Your task to perform on an android device: Go to Wikipedia Image 0: 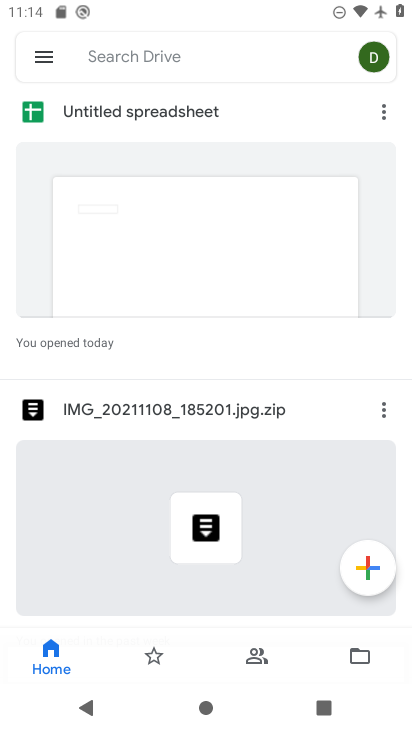
Step 0: press home button
Your task to perform on an android device: Go to Wikipedia Image 1: 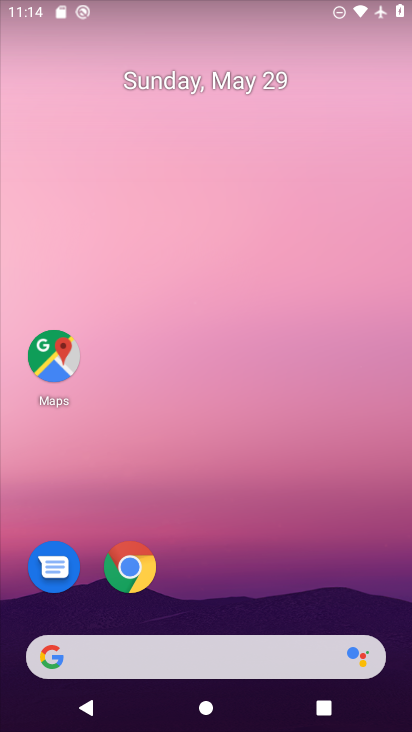
Step 1: click (132, 566)
Your task to perform on an android device: Go to Wikipedia Image 2: 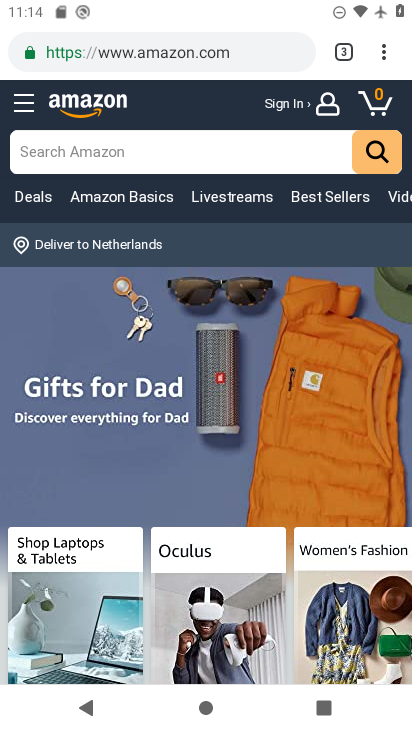
Step 2: click (246, 41)
Your task to perform on an android device: Go to Wikipedia Image 3: 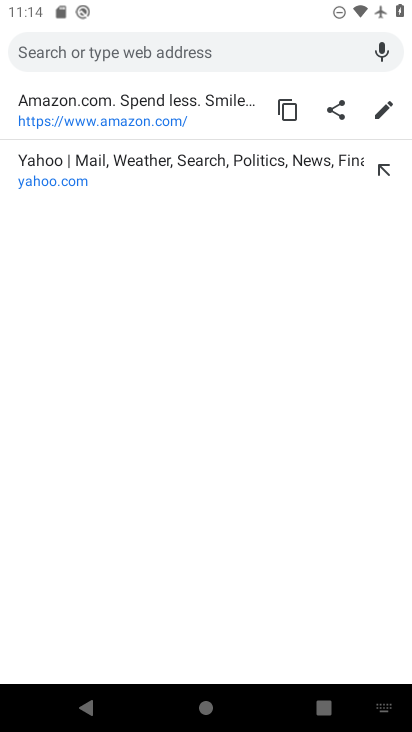
Step 3: type "wikipedia"
Your task to perform on an android device: Go to Wikipedia Image 4: 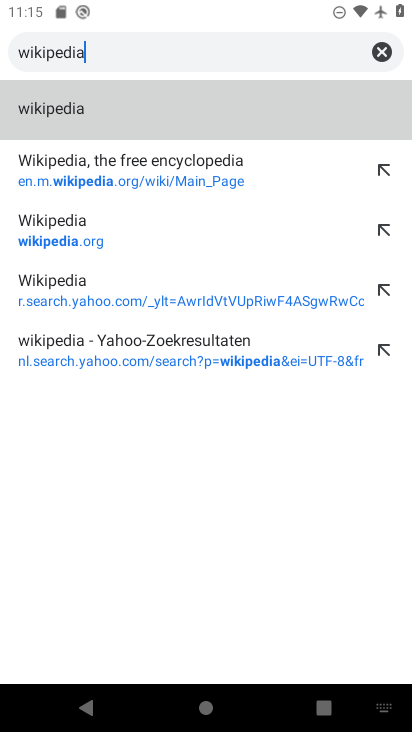
Step 4: click (78, 92)
Your task to perform on an android device: Go to Wikipedia Image 5: 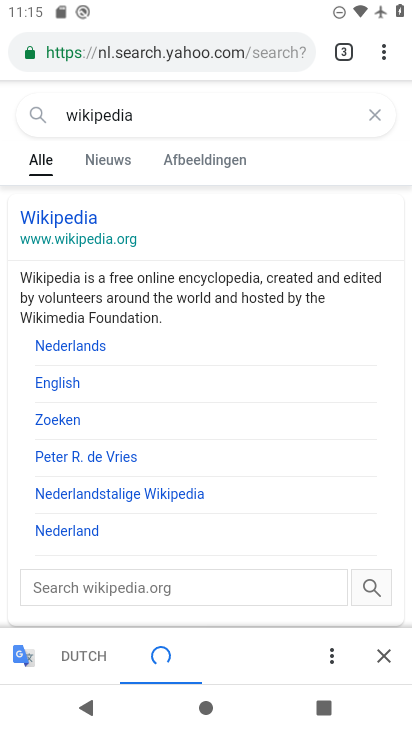
Step 5: click (66, 254)
Your task to perform on an android device: Go to Wikipedia Image 6: 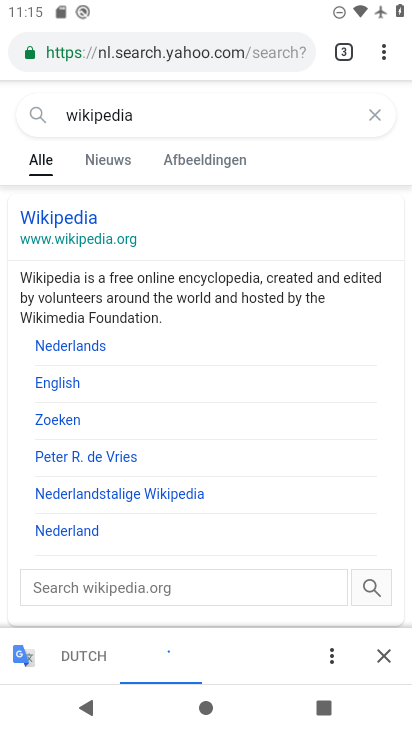
Step 6: click (61, 234)
Your task to perform on an android device: Go to Wikipedia Image 7: 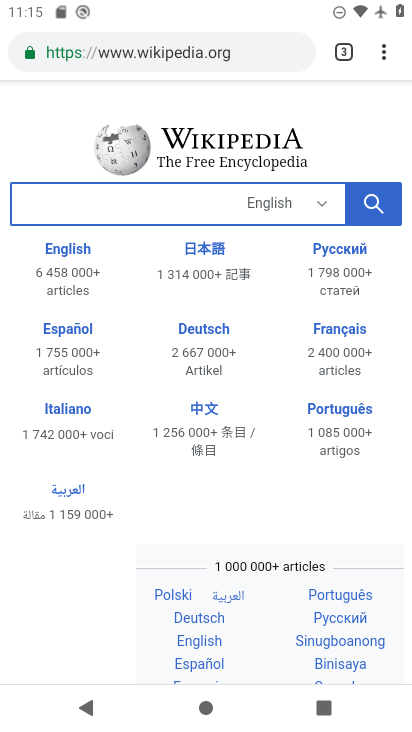
Step 7: task complete